Your task to perform on an android device: Open settings Image 0: 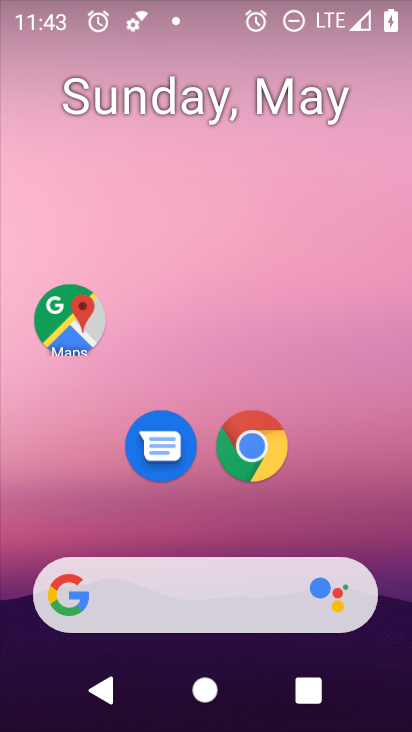
Step 0: drag from (346, 458) to (243, 49)
Your task to perform on an android device: Open settings Image 1: 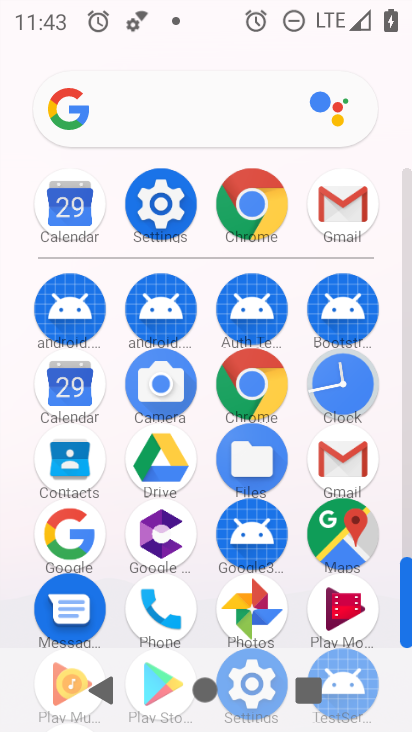
Step 1: drag from (1, 460) to (26, 223)
Your task to perform on an android device: Open settings Image 2: 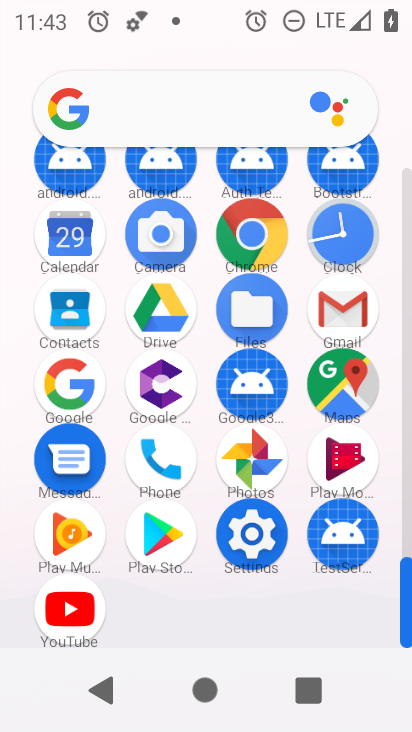
Step 2: click (255, 533)
Your task to perform on an android device: Open settings Image 3: 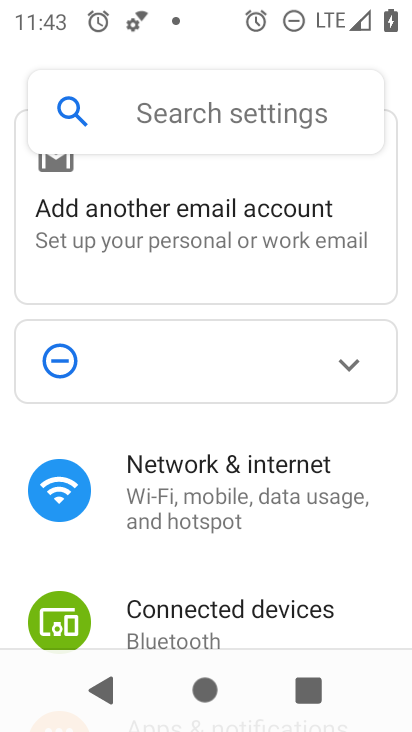
Step 3: task complete